Your task to perform on an android device: toggle show notifications on the lock screen Image 0: 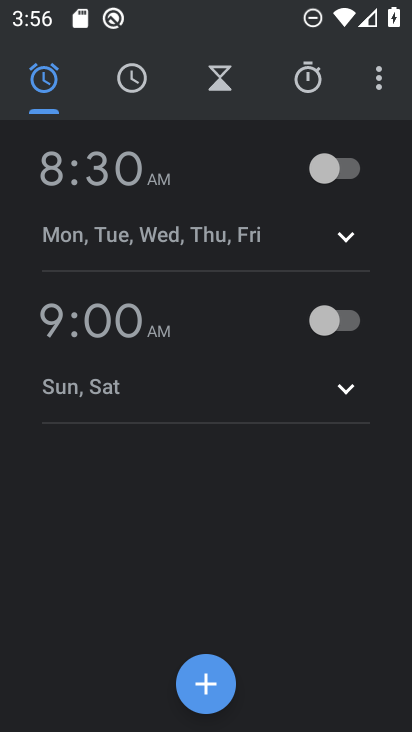
Step 0: press home button
Your task to perform on an android device: toggle show notifications on the lock screen Image 1: 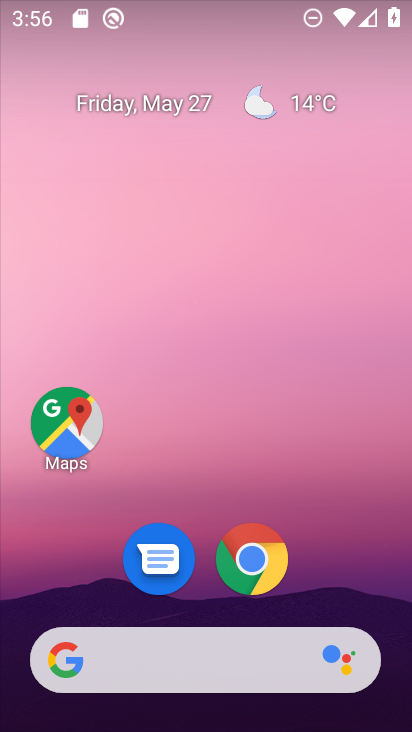
Step 1: drag from (168, 693) to (185, 96)
Your task to perform on an android device: toggle show notifications on the lock screen Image 2: 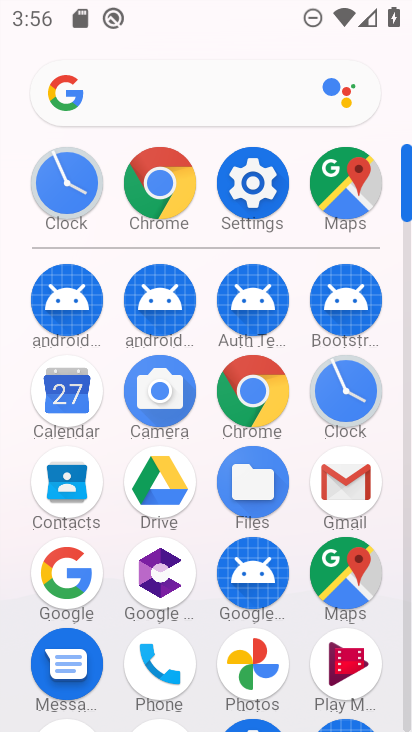
Step 2: click (246, 178)
Your task to perform on an android device: toggle show notifications on the lock screen Image 3: 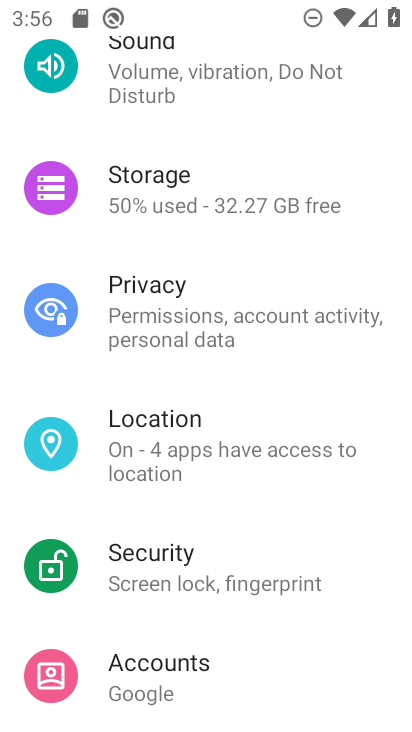
Step 3: drag from (224, 137) to (227, 718)
Your task to perform on an android device: toggle show notifications on the lock screen Image 4: 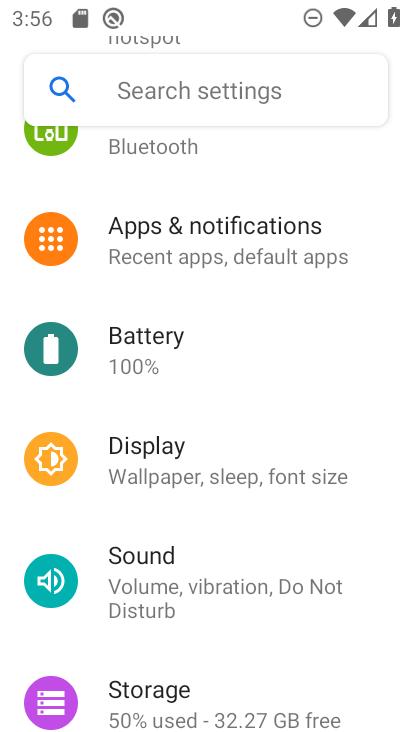
Step 4: drag from (194, 271) to (187, 475)
Your task to perform on an android device: toggle show notifications on the lock screen Image 5: 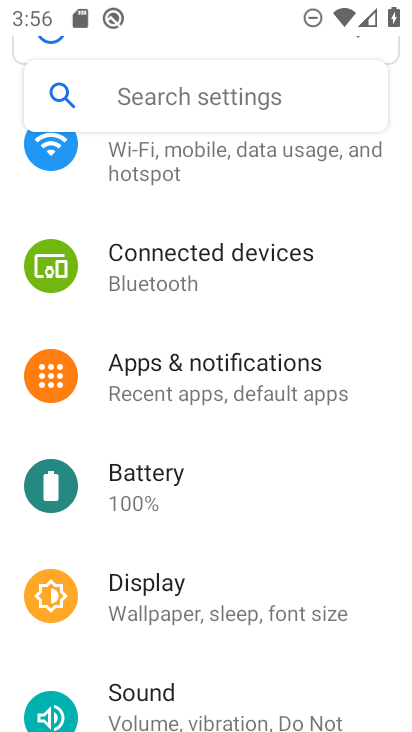
Step 5: click (235, 381)
Your task to perform on an android device: toggle show notifications on the lock screen Image 6: 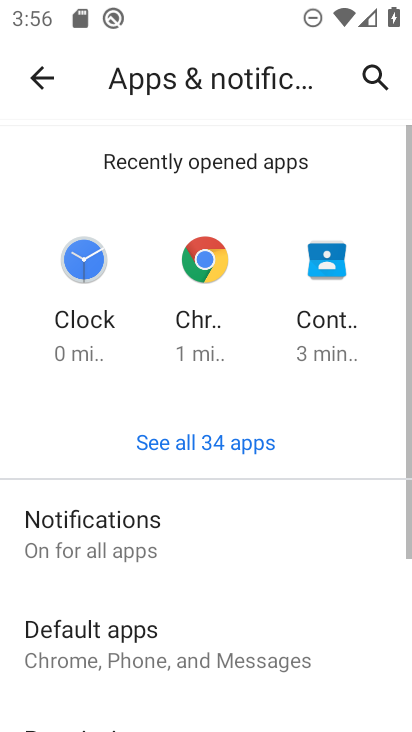
Step 6: drag from (238, 557) to (282, 24)
Your task to perform on an android device: toggle show notifications on the lock screen Image 7: 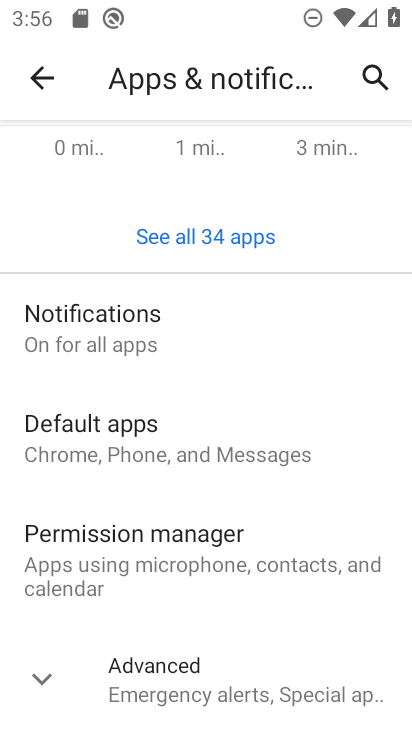
Step 7: click (196, 324)
Your task to perform on an android device: toggle show notifications on the lock screen Image 8: 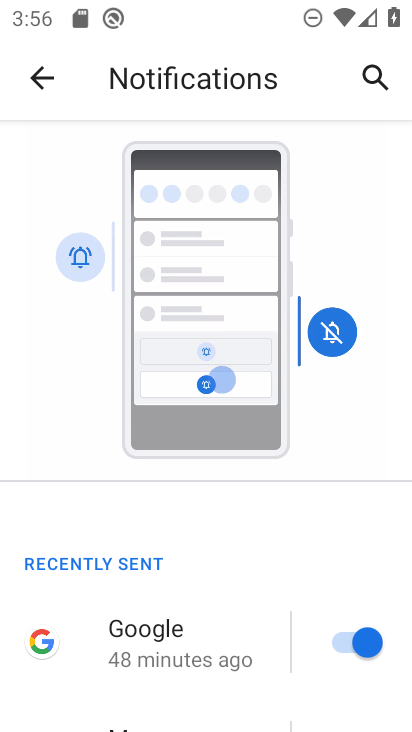
Step 8: drag from (164, 683) to (221, 123)
Your task to perform on an android device: toggle show notifications on the lock screen Image 9: 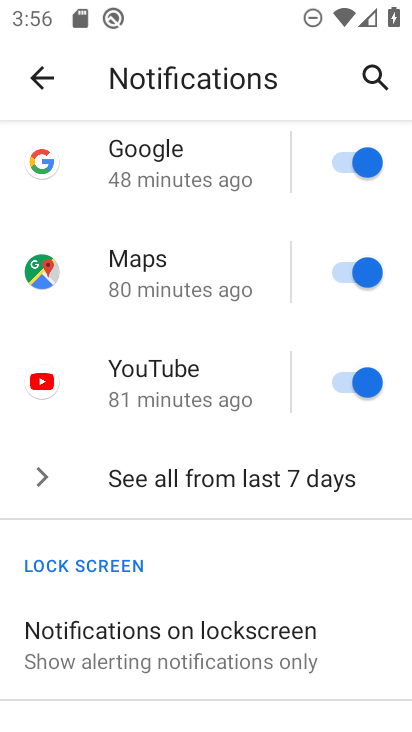
Step 9: drag from (175, 624) to (192, 242)
Your task to perform on an android device: toggle show notifications on the lock screen Image 10: 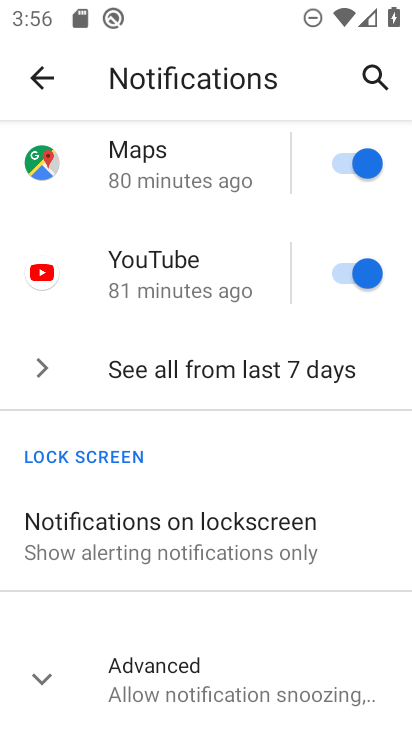
Step 10: click (188, 679)
Your task to perform on an android device: toggle show notifications on the lock screen Image 11: 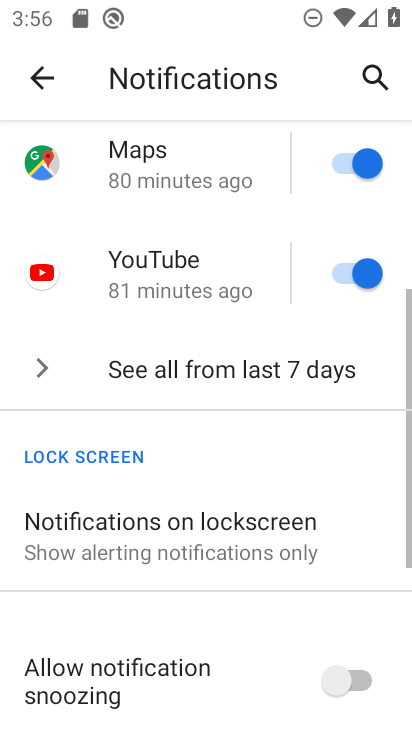
Step 11: click (197, 549)
Your task to perform on an android device: toggle show notifications on the lock screen Image 12: 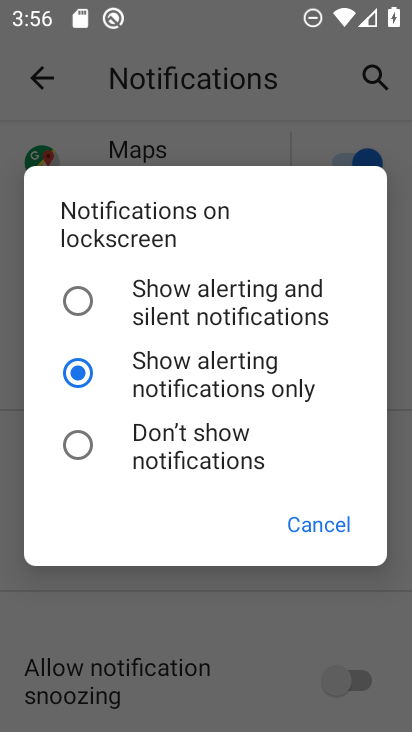
Step 12: click (79, 293)
Your task to perform on an android device: toggle show notifications on the lock screen Image 13: 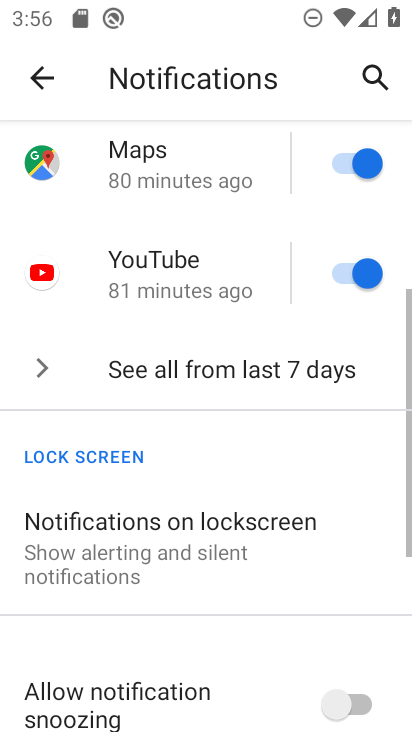
Step 13: task complete